Your task to perform on an android device: change timer sound Image 0: 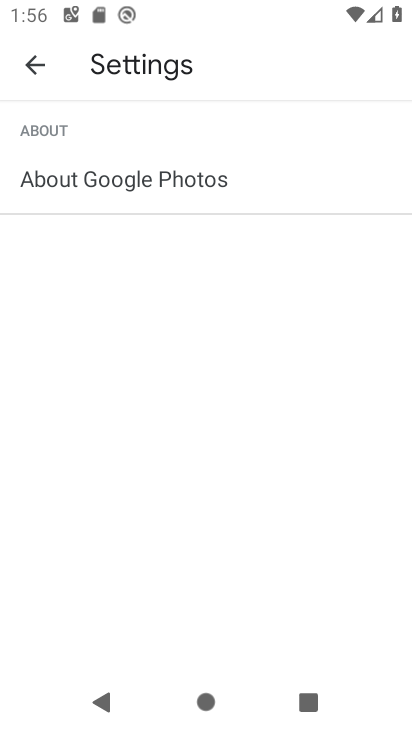
Step 0: press home button
Your task to perform on an android device: change timer sound Image 1: 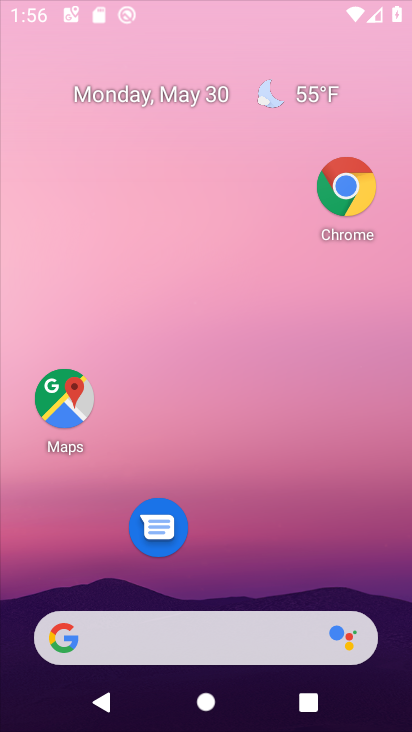
Step 1: drag from (224, 617) to (154, 29)
Your task to perform on an android device: change timer sound Image 2: 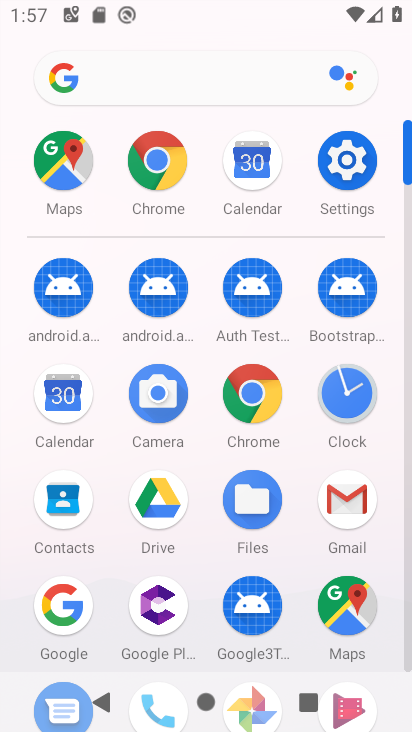
Step 2: click (342, 367)
Your task to perform on an android device: change timer sound Image 3: 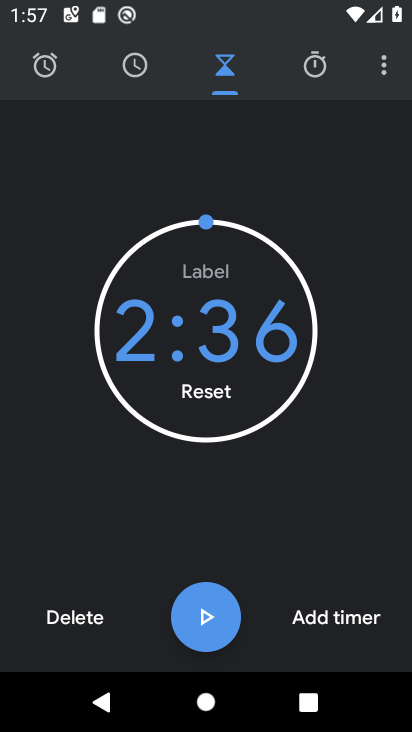
Step 3: click (69, 618)
Your task to perform on an android device: change timer sound Image 4: 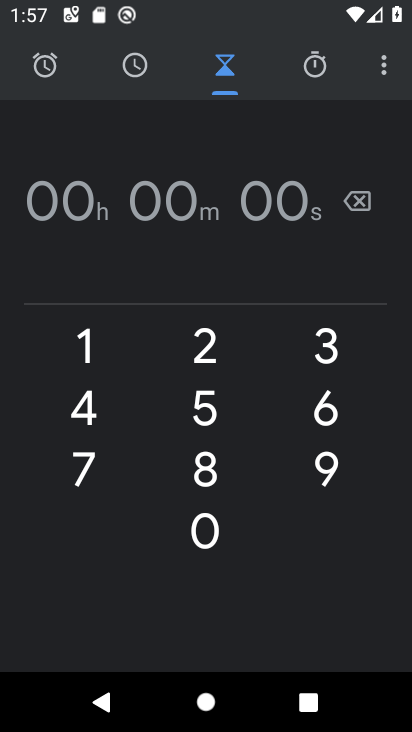
Step 4: click (203, 389)
Your task to perform on an android device: change timer sound Image 5: 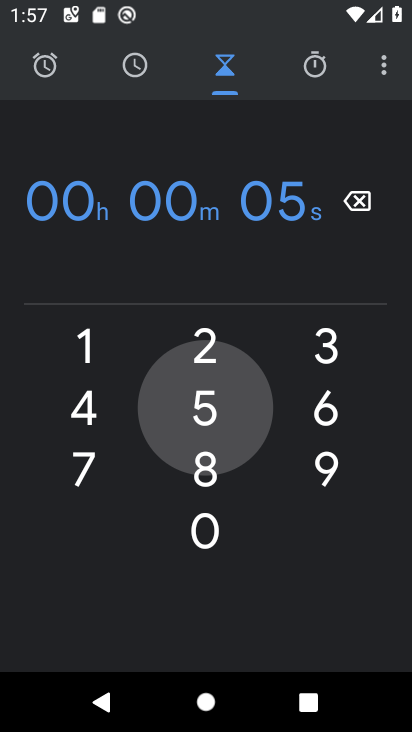
Step 5: click (340, 396)
Your task to perform on an android device: change timer sound Image 6: 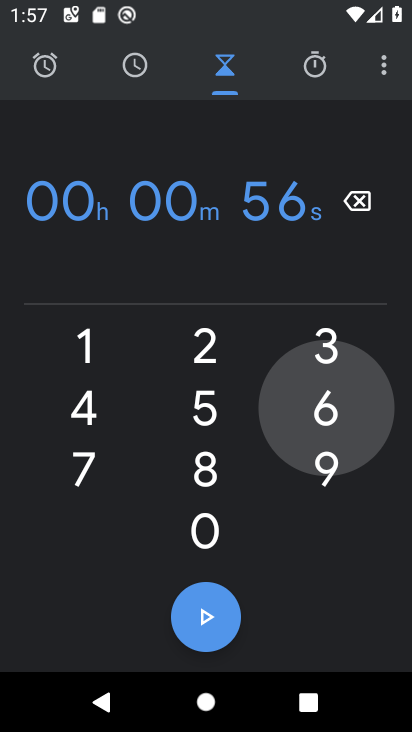
Step 6: click (245, 458)
Your task to perform on an android device: change timer sound Image 7: 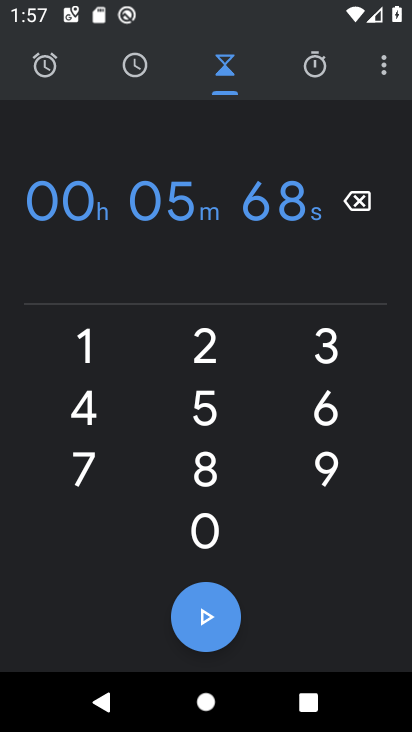
Step 7: click (205, 621)
Your task to perform on an android device: change timer sound Image 8: 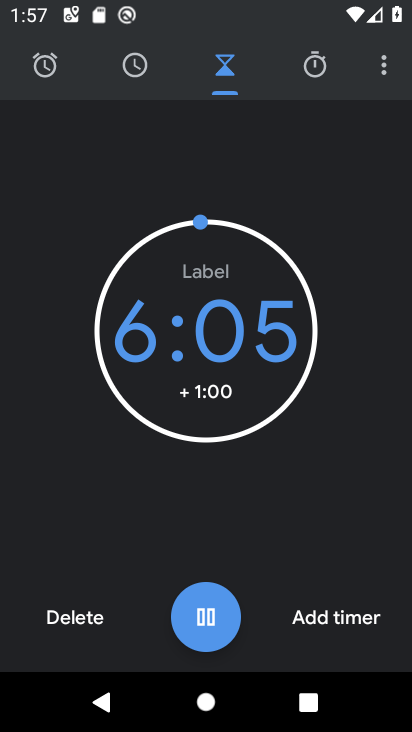
Step 8: task complete